Your task to perform on an android device: turn on javascript in the chrome app Image 0: 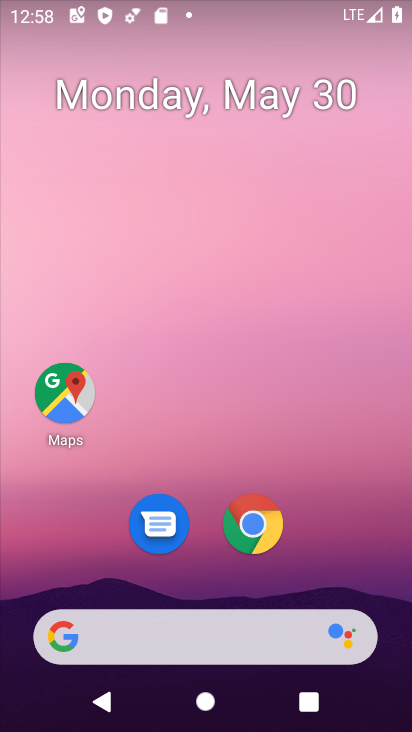
Step 0: click (257, 517)
Your task to perform on an android device: turn on javascript in the chrome app Image 1: 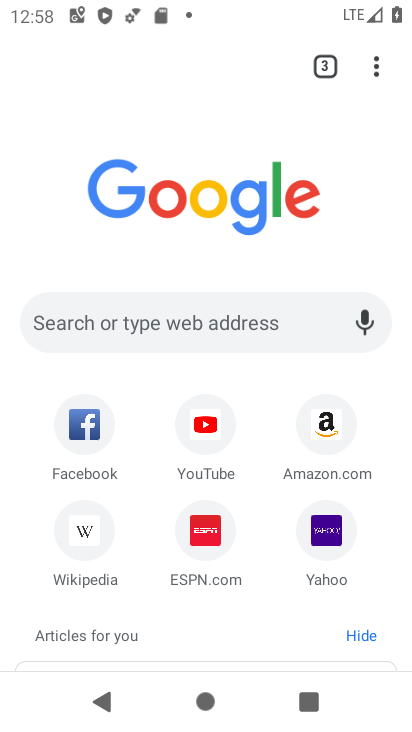
Step 1: click (375, 60)
Your task to perform on an android device: turn on javascript in the chrome app Image 2: 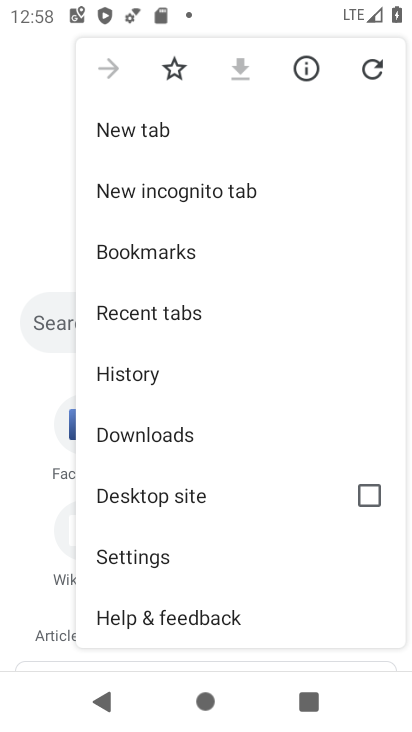
Step 2: click (184, 549)
Your task to perform on an android device: turn on javascript in the chrome app Image 3: 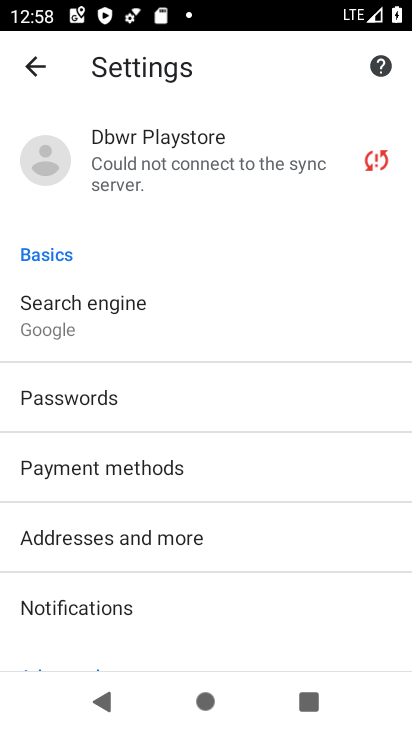
Step 3: drag from (228, 518) to (286, 307)
Your task to perform on an android device: turn on javascript in the chrome app Image 4: 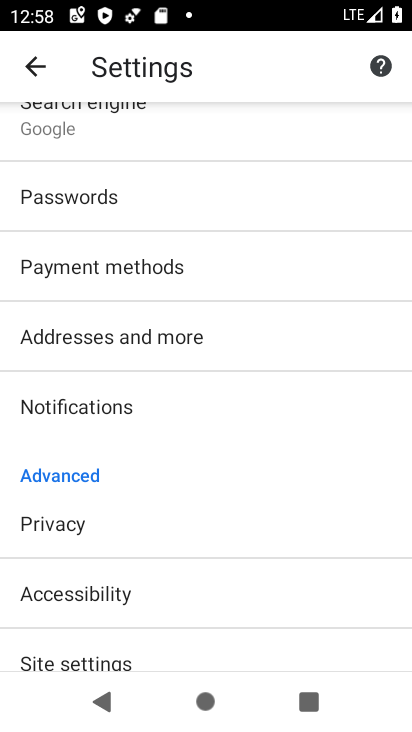
Step 4: click (200, 649)
Your task to perform on an android device: turn on javascript in the chrome app Image 5: 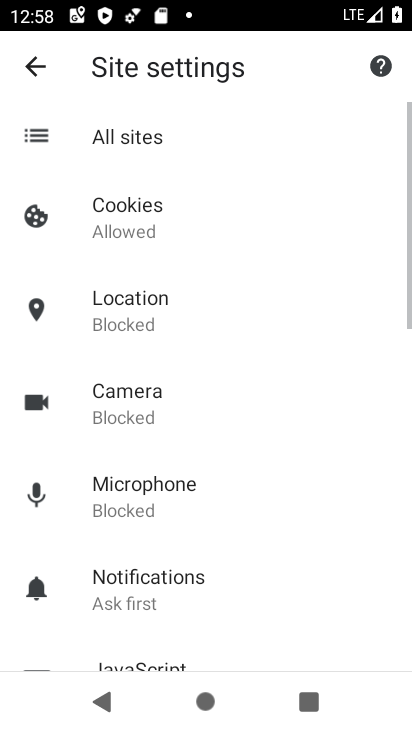
Step 5: drag from (257, 569) to (234, 344)
Your task to perform on an android device: turn on javascript in the chrome app Image 6: 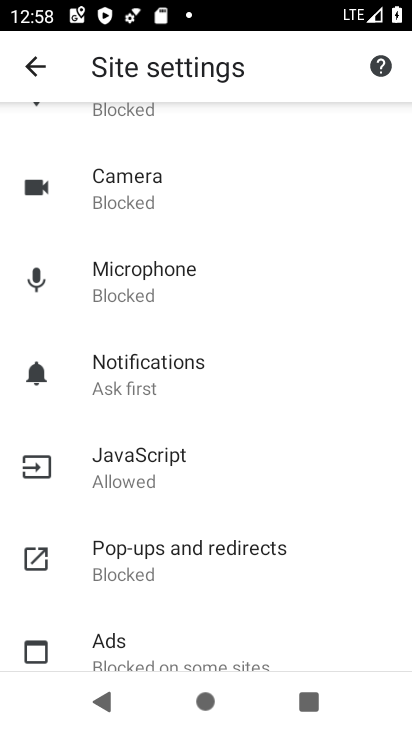
Step 6: click (186, 457)
Your task to perform on an android device: turn on javascript in the chrome app Image 7: 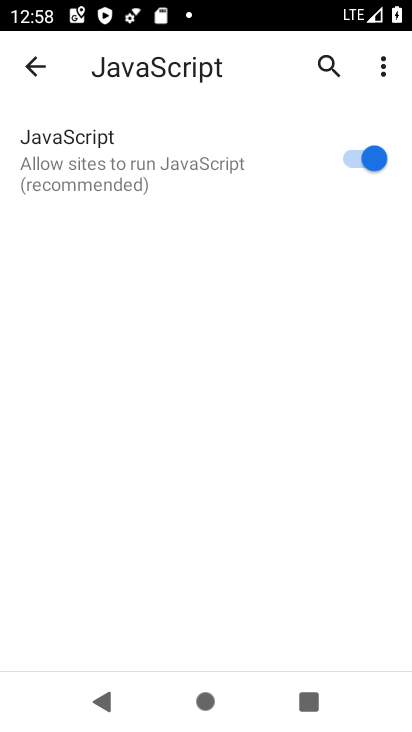
Step 7: task complete